Your task to perform on an android device: read, delete, or share a saved page in the chrome app Image 0: 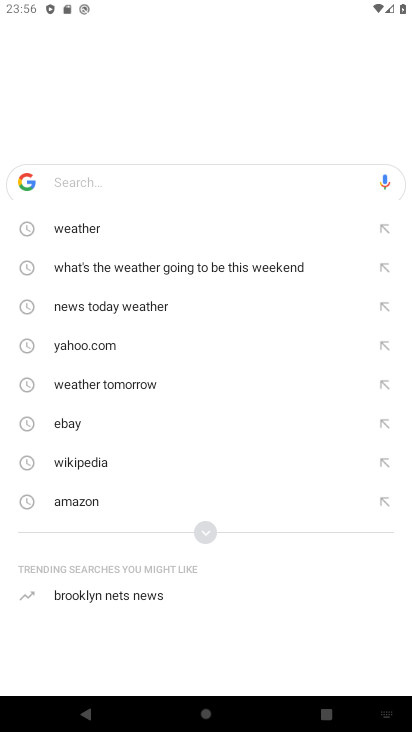
Step 0: press home button
Your task to perform on an android device: read, delete, or share a saved page in the chrome app Image 1: 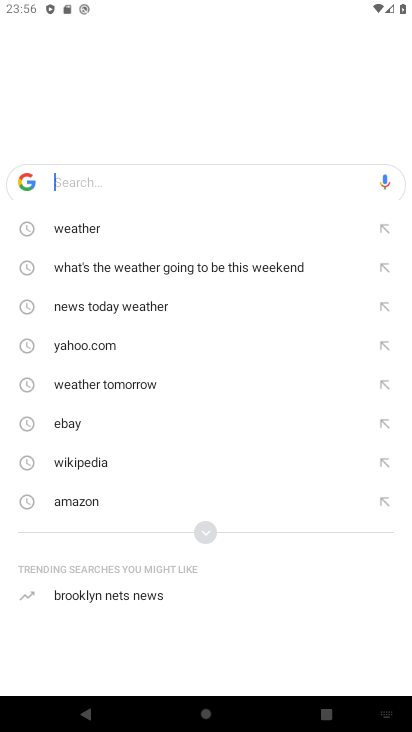
Step 1: press home button
Your task to perform on an android device: read, delete, or share a saved page in the chrome app Image 2: 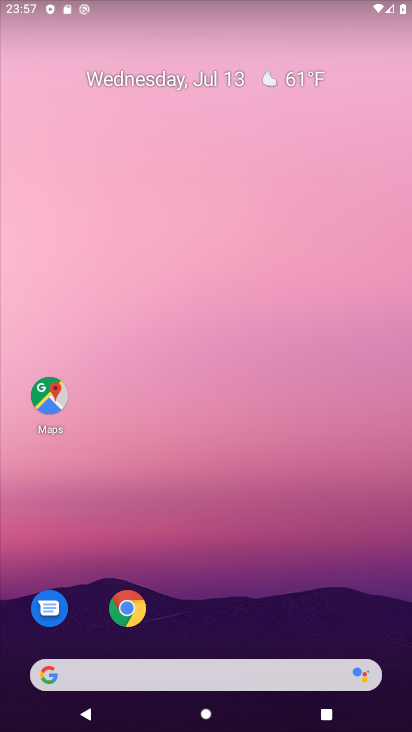
Step 2: click (122, 599)
Your task to perform on an android device: read, delete, or share a saved page in the chrome app Image 3: 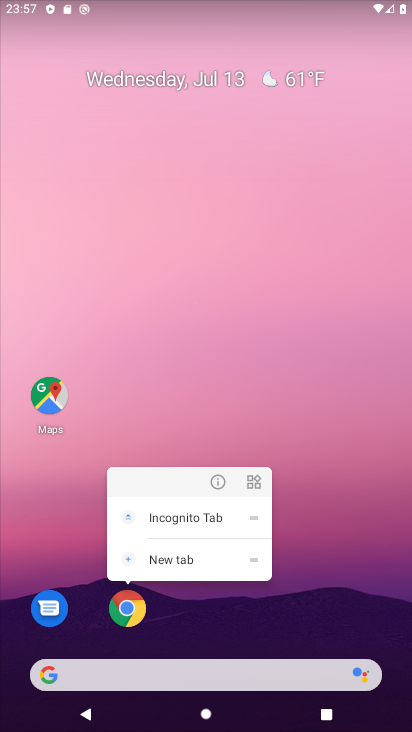
Step 3: click (216, 481)
Your task to perform on an android device: read, delete, or share a saved page in the chrome app Image 4: 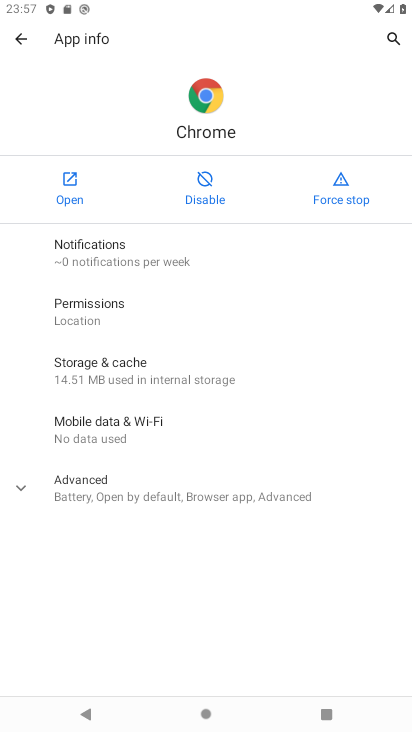
Step 4: click (66, 188)
Your task to perform on an android device: read, delete, or share a saved page in the chrome app Image 5: 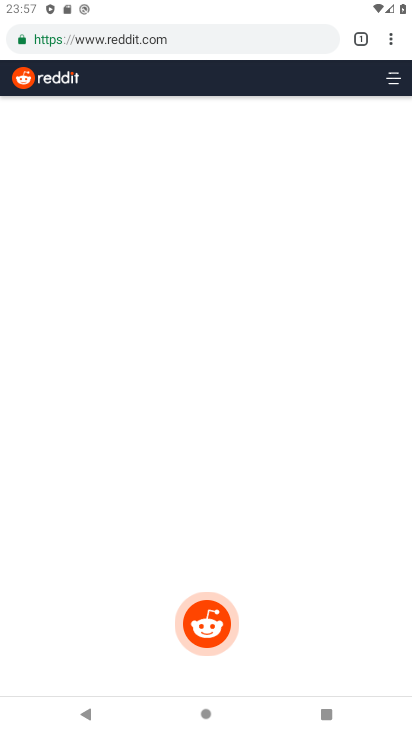
Step 5: drag from (185, 595) to (194, 410)
Your task to perform on an android device: read, delete, or share a saved page in the chrome app Image 6: 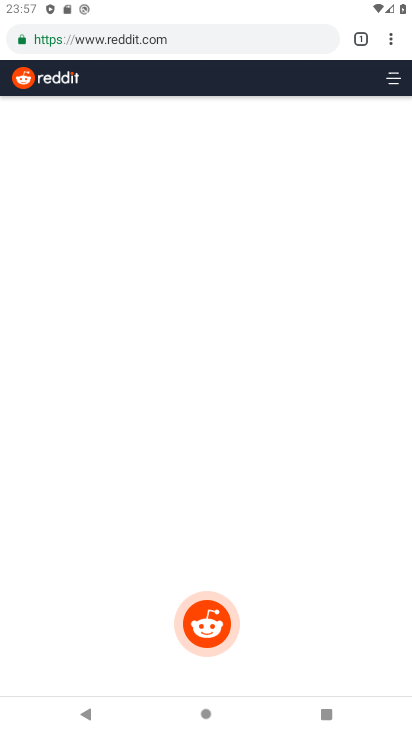
Step 6: drag from (190, 566) to (197, 390)
Your task to perform on an android device: read, delete, or share a saved page in the chrome app Image 7: 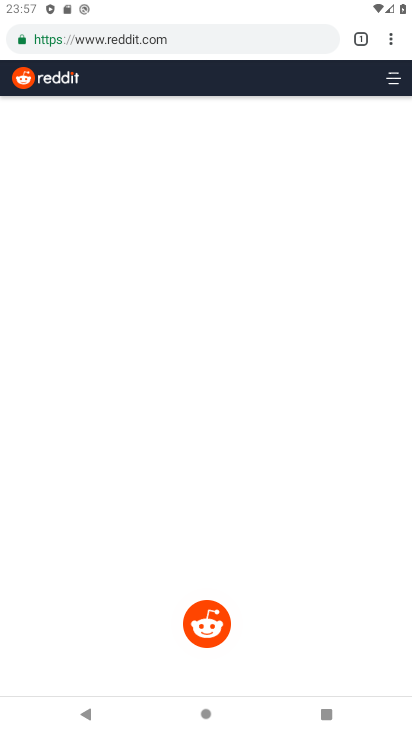
Step 7: click (382, 38)
Your task to perform on an android device: read, delete, or share a saved page in the chrome app Image 8: 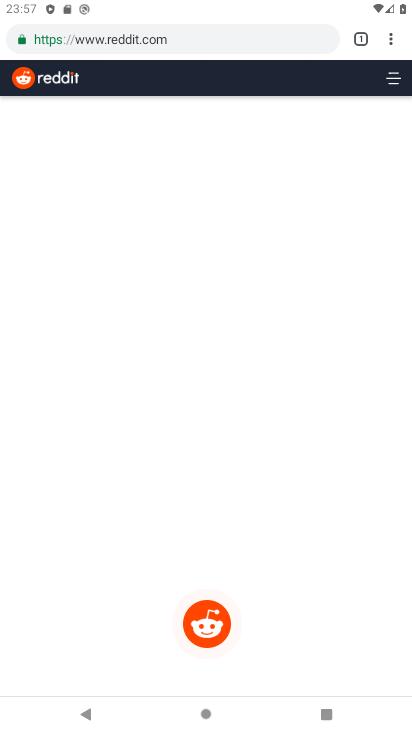
Step 8: click (391, 39)
Your task to perform on an android device: read, delete, or share a saved page in the chrome app Image 9: 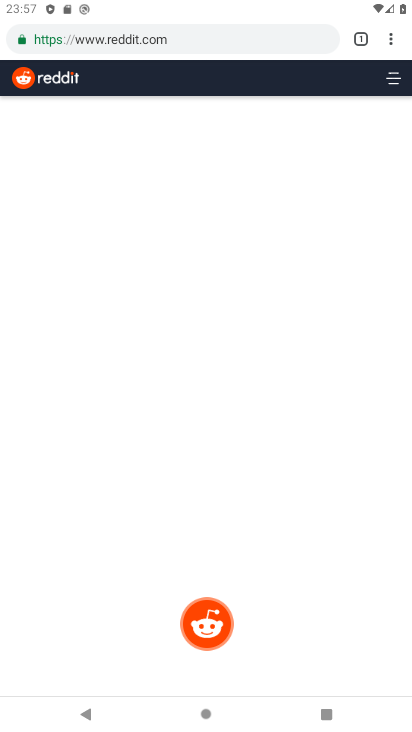
Step 9: drag from (390, 37) to (266, 231)
Your task to perform on an android device: read, delete, or share a saved page in the chrome app Image 10: 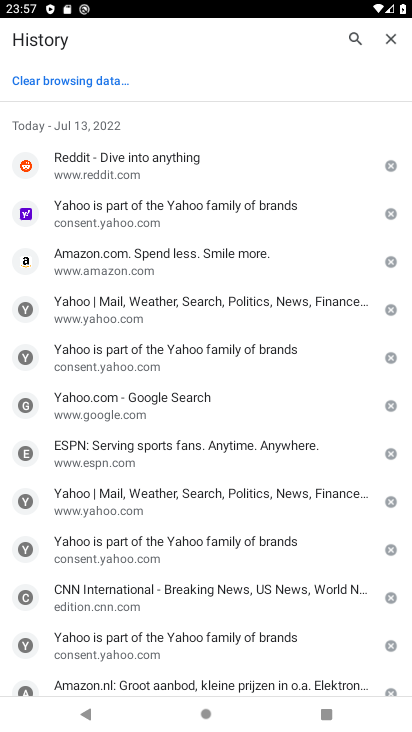
Step 10: drag from (168, 511) to (155, 215)
Your task to perform on an android device: read, delete, or share a saved page in the chrome app Image 11: 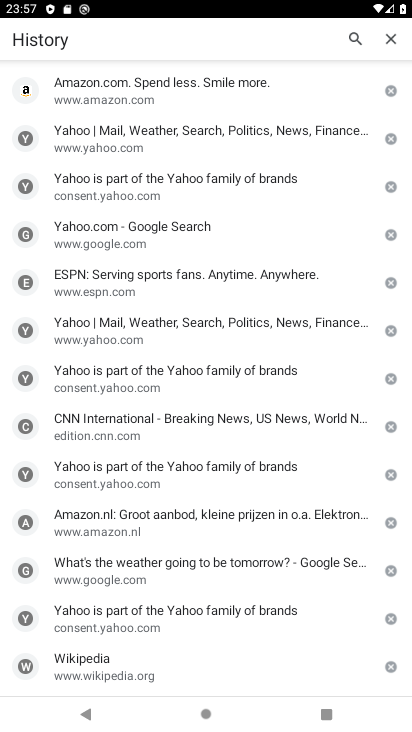
Step 11: drag from (151, 174) to (234, 626)
Your task to perform on an android device: read, delete, or share a saved page in the chrome app Image 12: 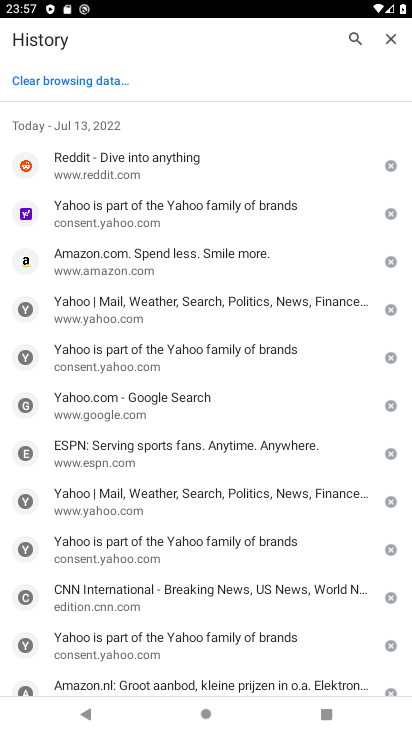
Step 12: click (49, 76)
Your task to perform on an android device: read, delete, or share a saved page in the chrome app Image 13: 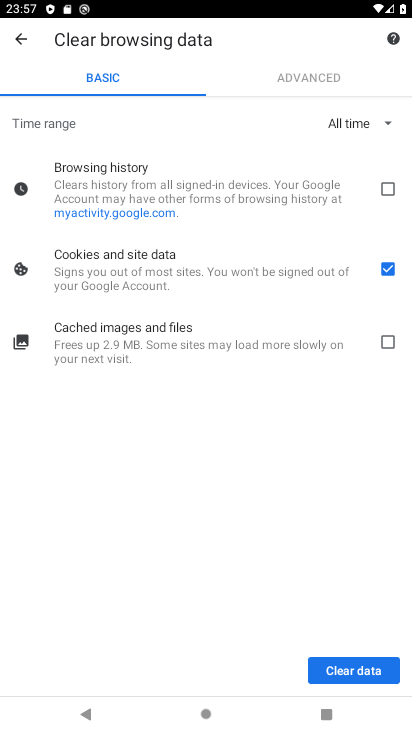
Step 13: click (359, 672)
Your task to perform on an android device: read, delete, or share a saved page in the chrome app Image 14: 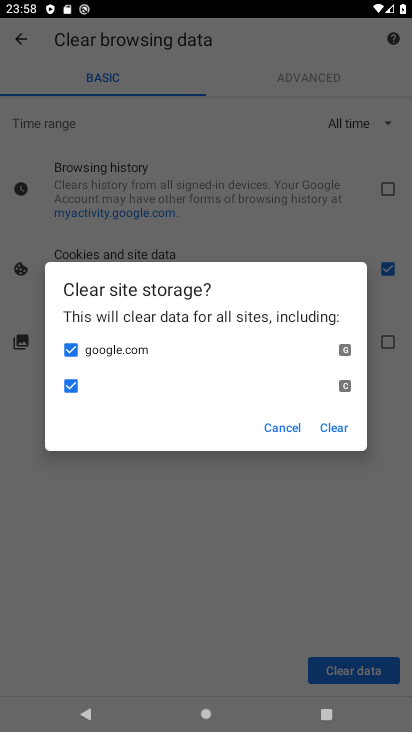
Step 14: click (274, 424)
Your task to perform on an android device: read, delete, or share a saved page in the chrome app Image 15: 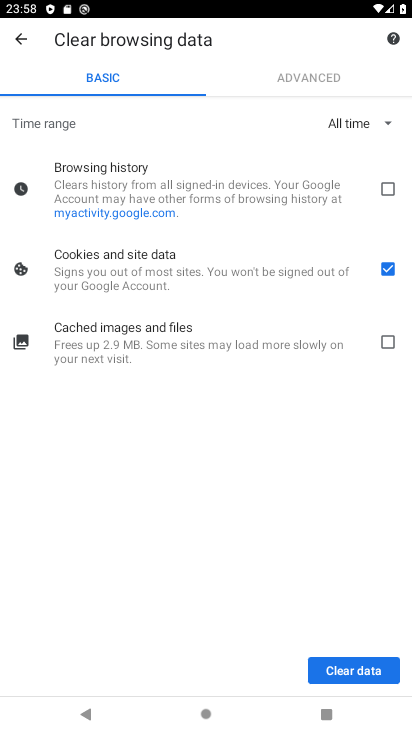
Step 15: click (276, 434)
Your task to perform on an android device: read, delete, or share a saved page in the chrome app Image 16: 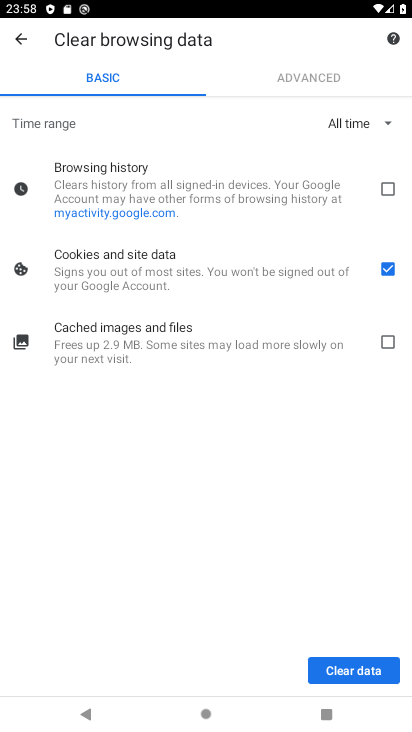
Step 16: click (390, 183)
Your task to perform on an android device: read, delete, or share a saved page in the chrome app Image 17: 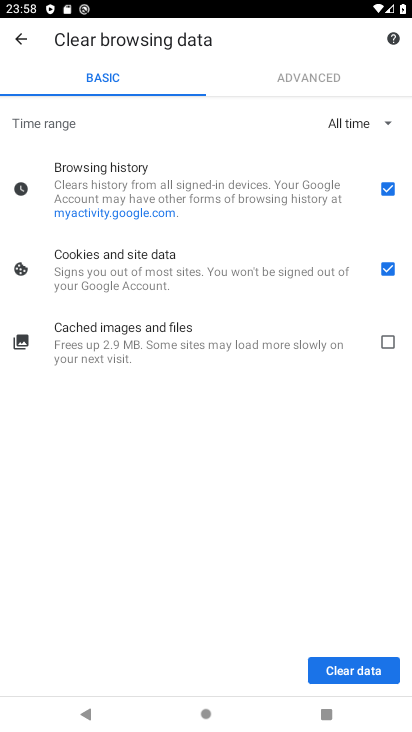
Step 17: click (377, 343)
Your task to perform on an android device: read, delete, or share a saved page in the chrome app Image 18: 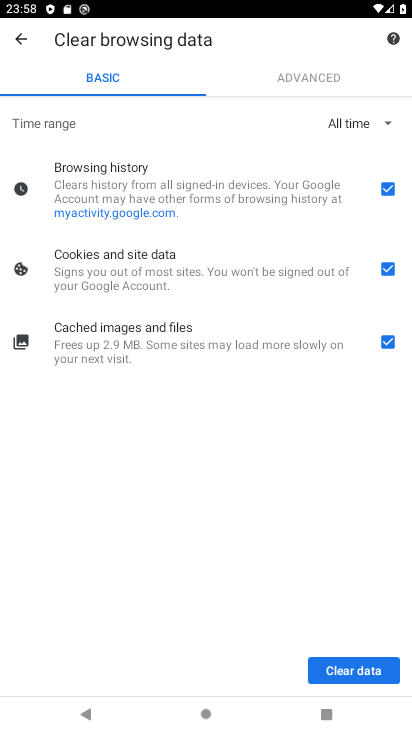
Step 18: click (361, 675)
Your task to perform on an android device: read, delete, or share a saved page in the chrome app Image 19: 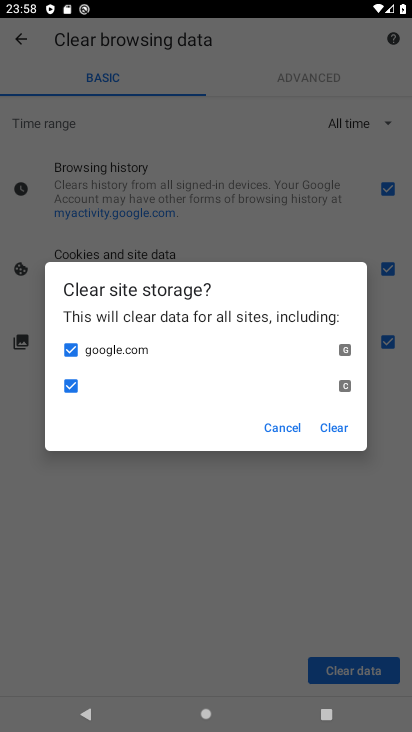
Step 19: click (327, 506)
Your task to perform on an android device: read, delete, or share a saved page in the chrome app Image 20: 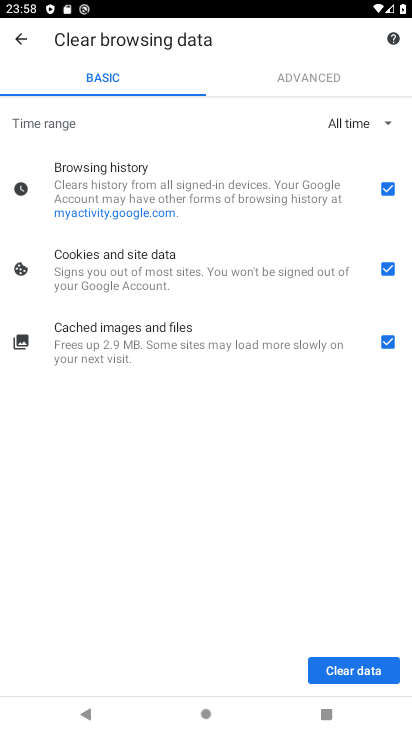
Step 20: drag from (240, 572) to (278, 259)
Your task to perform on an android device: read, delete, or share a saved page in the chrome app Image 21: 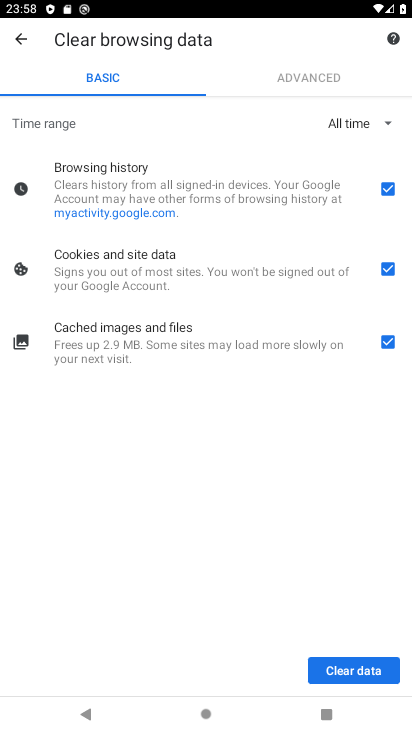
Step 21: drag from (240, 551) to (270, 416)
Your task to perform on an android device: read, delete, or share a saved page in the chrome app Image 22: 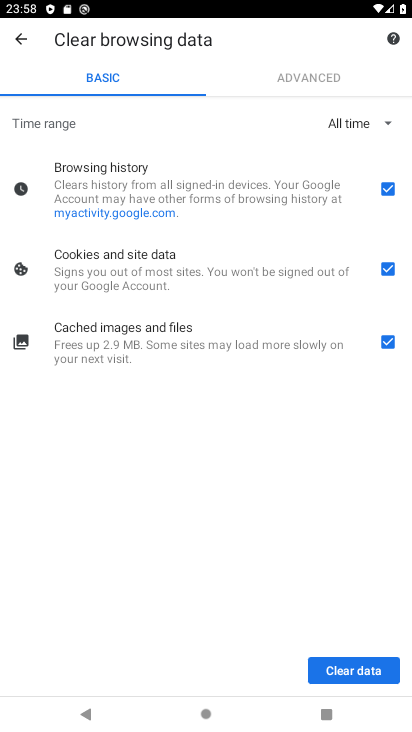
Step 22: drag from (262, 468) to (319, 273)
Your task to perform on an android device: read, delete, or share a saved page in the chrome app Image 23: 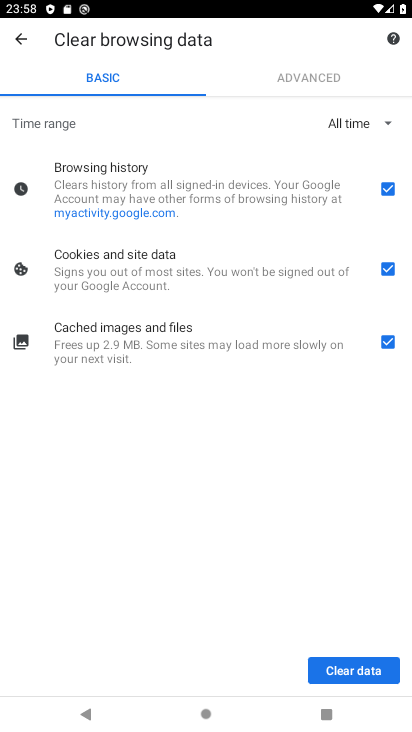
Step 23: drag from (242, 572) to (320, 366)
Your task to perform on an android device: read, delete, or share a saved page in the chrome app Image 24: 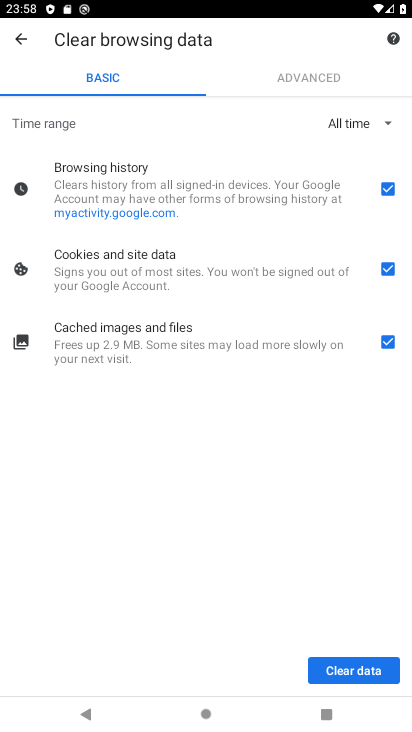
Step 24: drag from (181, 406) to (229, 263)
Your task to perform on an android device: read, delete, or share a saved page in the chrome app Image 25: 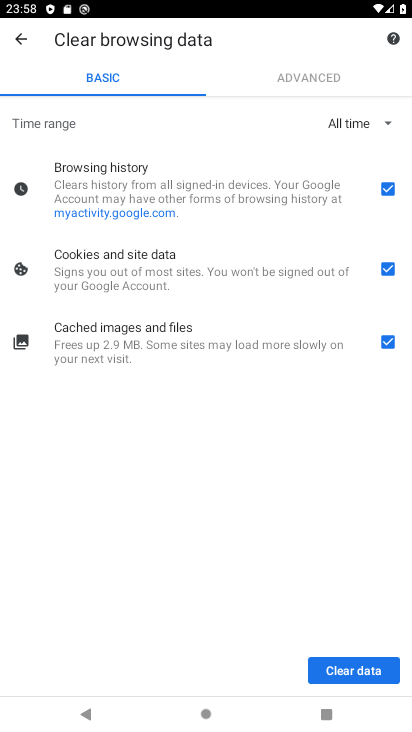
Step 25: drag from (203, 480) to (254, 326)
Your task to perform on an android device: read, delete, or share a saved page in the chrome app Image 26: 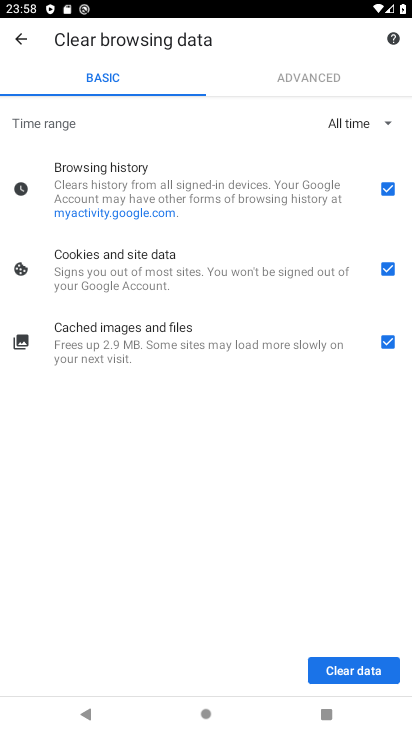
Step 26: drag from (200, 504) to (226, 325)
Your task to perform on an android device: read, delete, or share a saved page in the chrome app Image 27: 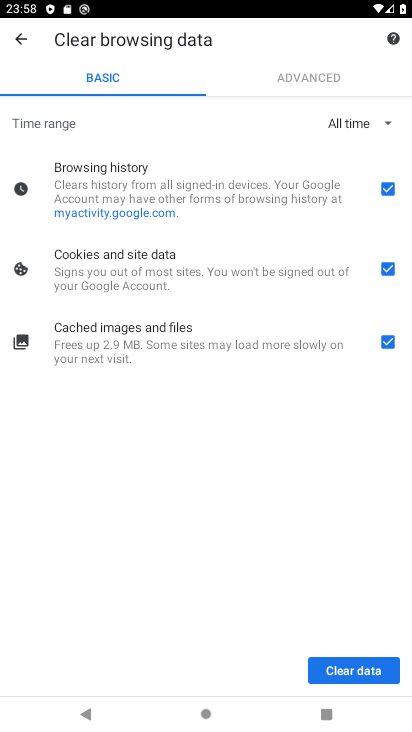
Step 27: click (314, 82)
Your task to perform on an android device: read, delete, or share a saved page in the chrome app Image 28: 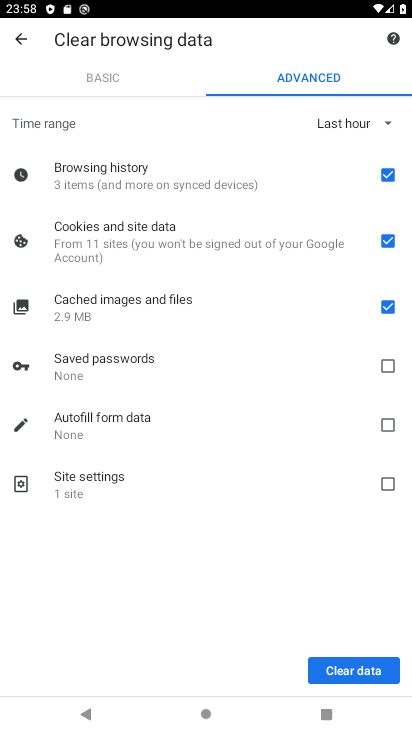
Step 28: click (116, 81)
Your task to perform on an android device: read, delete, or share a saved page in the chrome app Image 29: 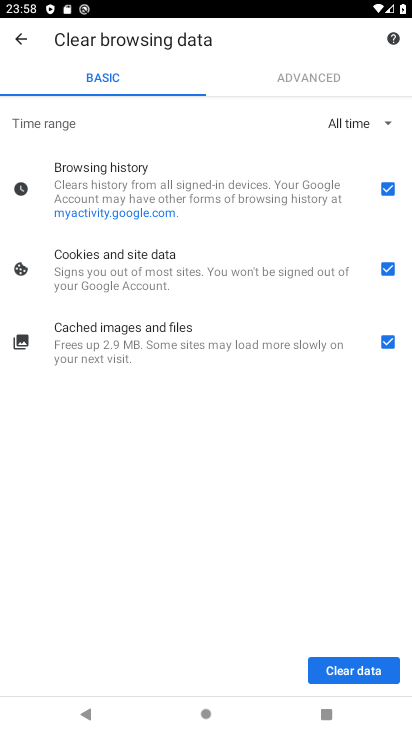
Step 29: click (128, 76)
Your task to perform on an android device: read, delete, or share a saved page in the chrome app Image 30: 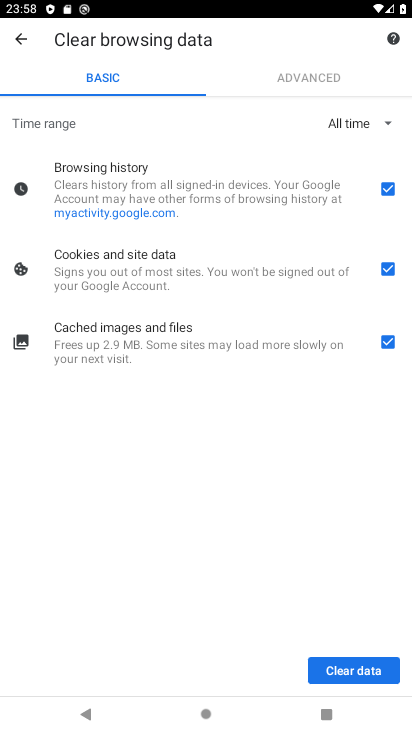
Step 30: drag from (172, 579) to (205, 104)
Your task to perform on an android device: read, delete, or share a saved page in the chrome app Image 31: 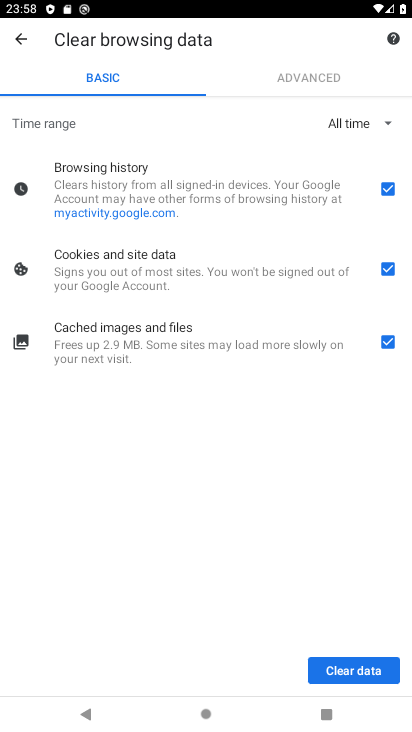
Step 31: click (387, 116)
Your task to perform on an android device: read, delete, or share a saved page in the chrome app Image 32: 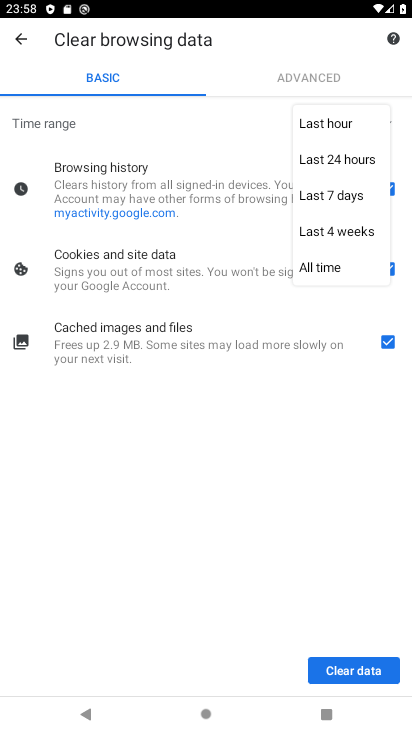
Step 32: click (217, 111)
Your task to perform on an android device: read, delete, or share a saved page in the chrome app Image 33: 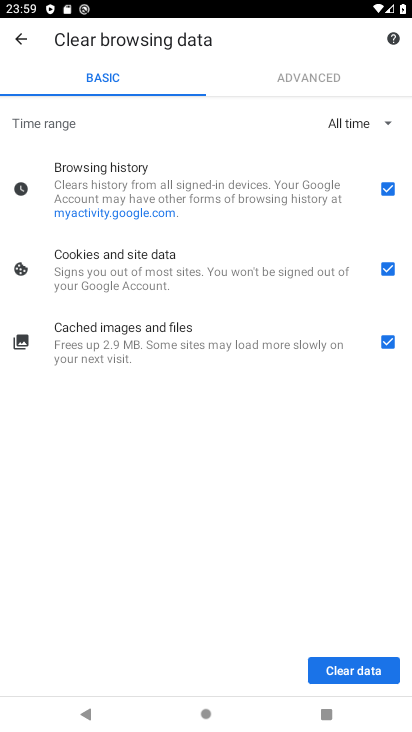
Step 33: drag from (146, 572) to (153, 350)
Your task to perform on an android device: read, delete, or share a saved page in the chrome app Image 34: 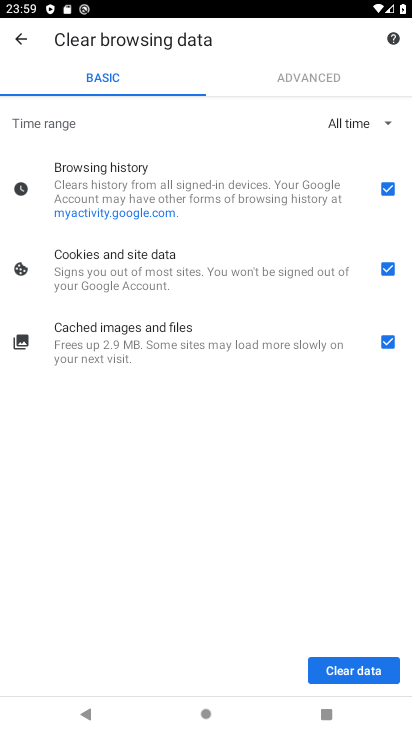
Step 34: drag from (217, 446) to (199, 302)
Your task to perform on an android device: read, delete, or share a saved page in the chrome app Image 35: 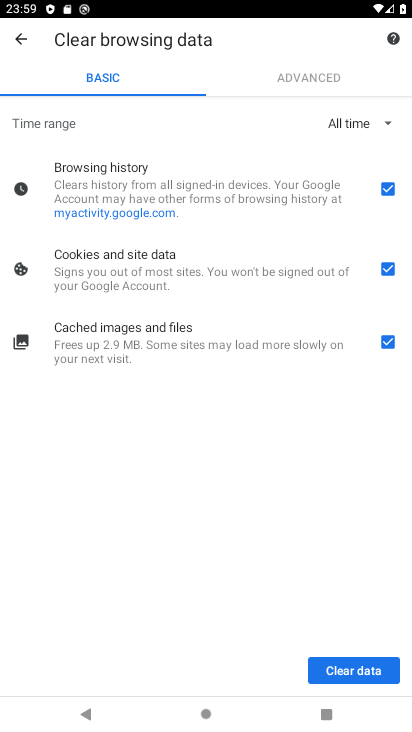
Step 35: drag from (183, 552) to (240, 198)
Your task to perform on an android device: read, delete, or share a saved page in the chrome app Image 36: 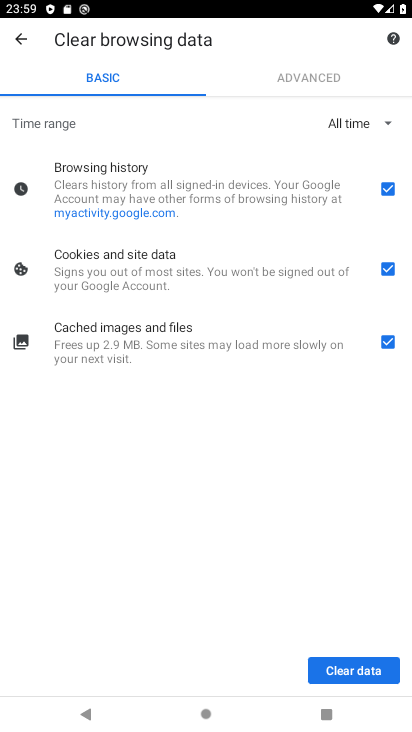
Step 36: press home button
Your task to perform on an android device: read, delete, or share a saved page in the chrome app Image 37: 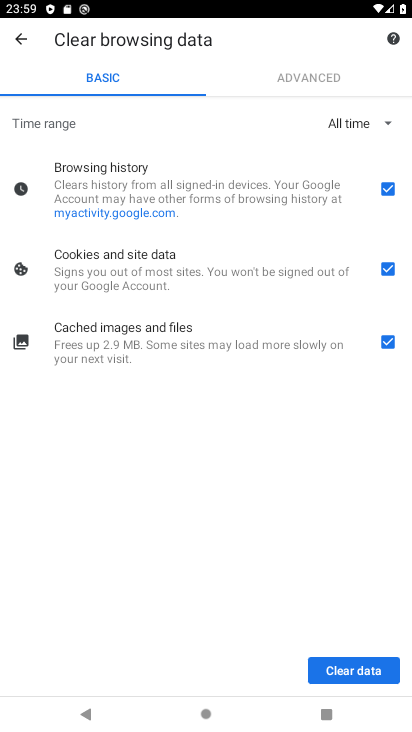
Step 37: drag from (205, 278) to (221, 108)
Your task to perform on an android device: read, delete, or share a saved page in the chrome app Image 38: 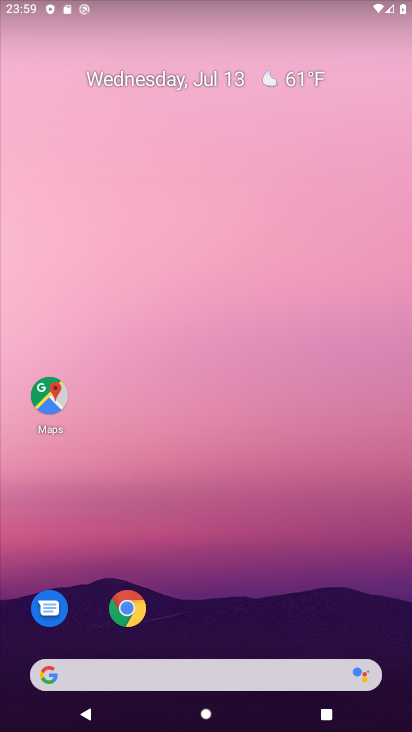
Step 38: drag from (167, 629) to (252, 43)
Your task to perform on an android device: read, delete, or share a saved page in the chrome app Image 39: 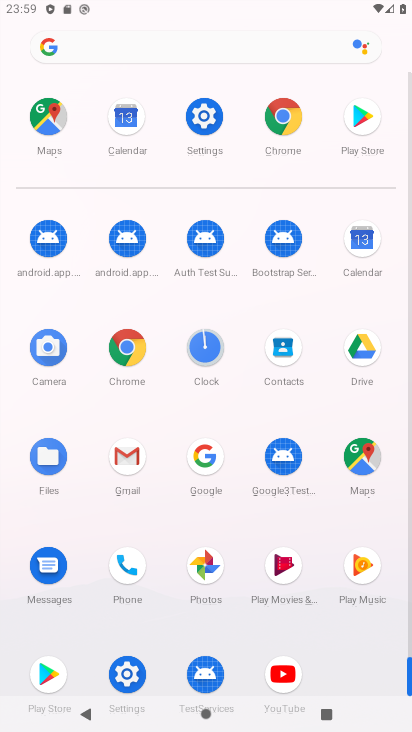
Step 39: click (131, 352)
Your task to perform on an android device: read, delete, or share a saved page in the chrome app Image 40: 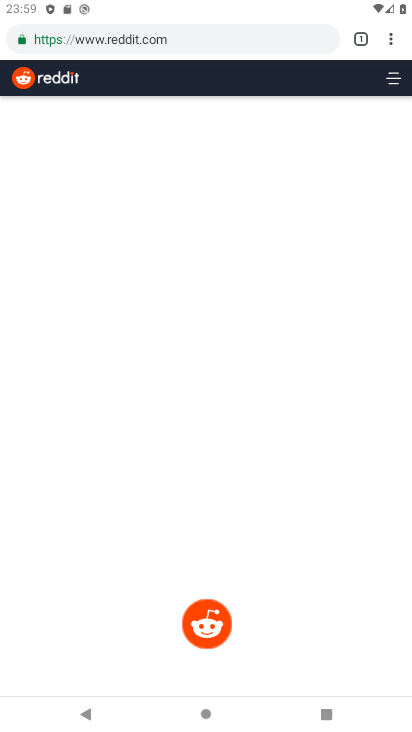
Step 40: click (403, 52)
Your task to perform on an android device: read, delete, or share a saved page in the chrome app Image 41: 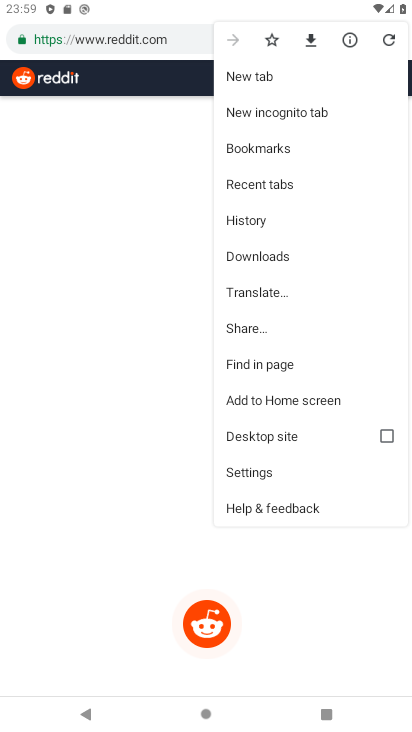
Step 41: click (279, 218)
Your task to perform on an android device: read, delete, or share a saved page in the chrome app Image 42: 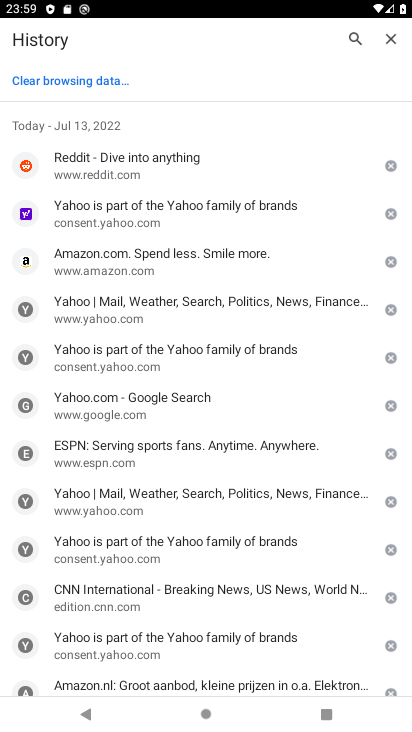
Step 42: click (390, 34)
Your task to perform on an android device: read, delete, or share a saved page in the chrome app Image 43: 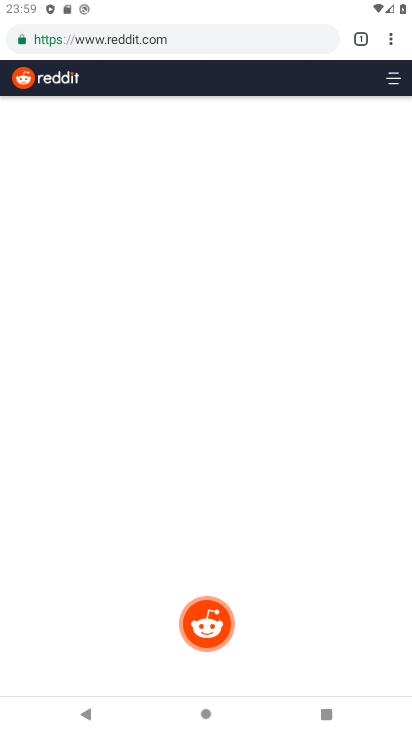
Step 43: click (391, 40)
Your task to perform on an android device: read, delete, or share a saved page in the chrome app Image 44: 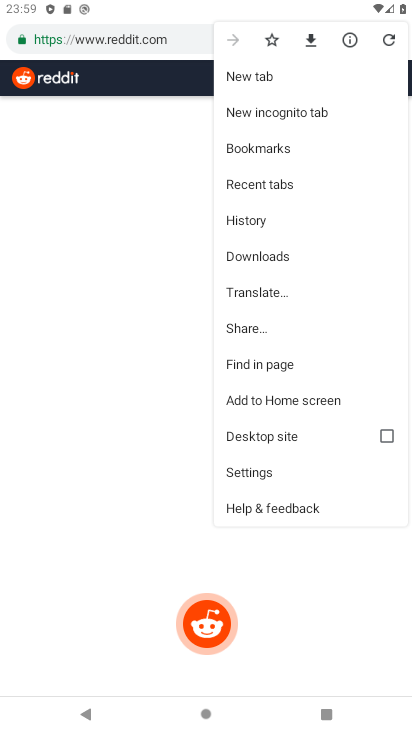
Step 44: click (278, 151)
Your task to perform on an android device: read, delete, or share a saved page in the chrome app Image 45: 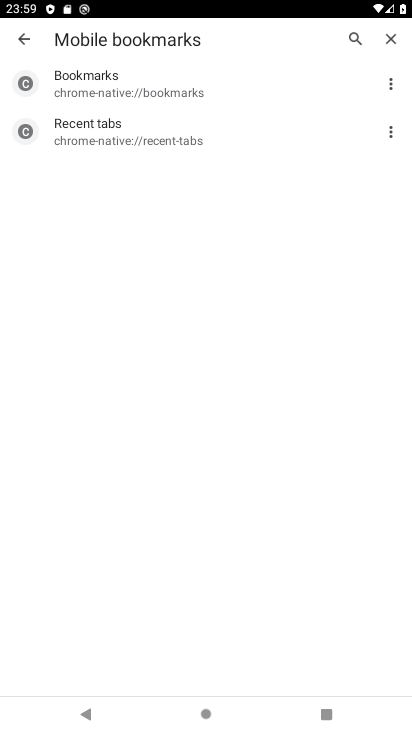
Step 45: click (394, 125)
Your task to perform on an android device: read, delete, or share a saved page in the chrome app Image 46: 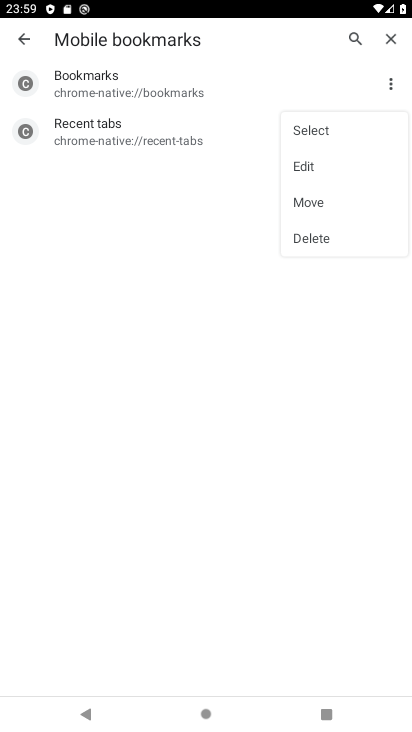
Step 46: click (318, 237)
Your task to perform on an android device: read, delete, or share a saved page in the chrome app Image 47: 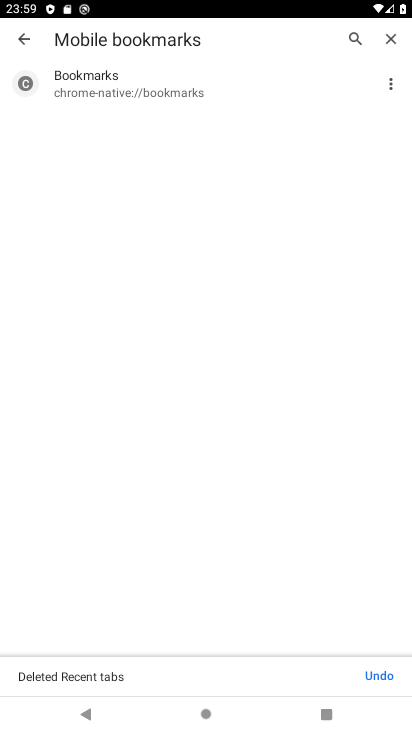
Step 47: task complete